Your task to perform on an android device: Turn on the flashlight Image 0: 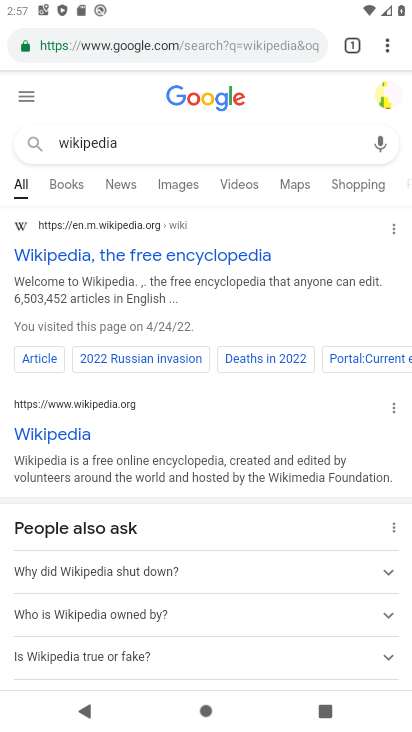
Step 0: press home button
Your task to perform on an android device: Turn on the flashlight Image 1: 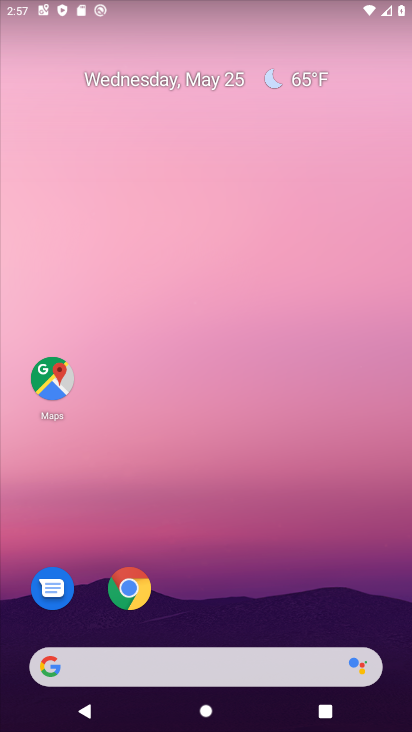
Step 1: drag from (222, 440) to (273, 171)
Your task to perform on an android device: Turn on the flashlight Image 2: 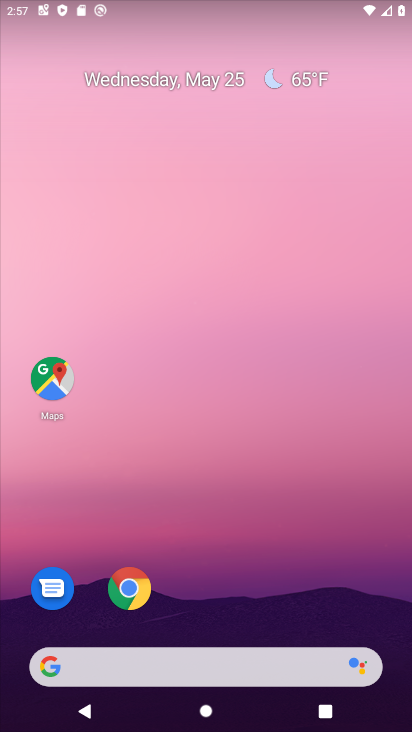
Step 2: drag from (212, 595) to (269, 100)
Your task to perform on an android device: Turn on the flashlight Image 3: 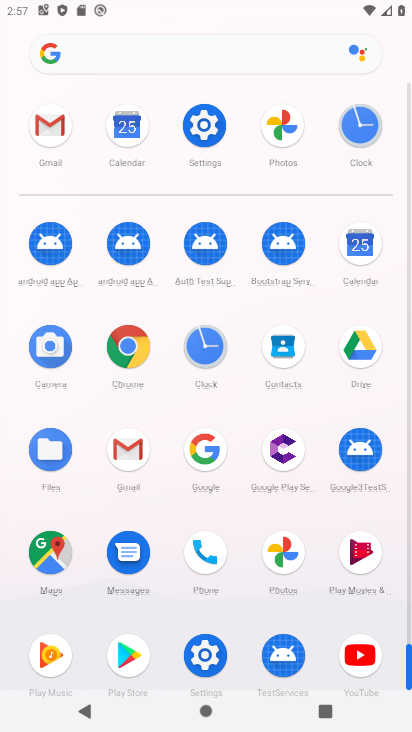
Step 3: click (203, 123)
Your task to perform on an android device: Turn on the flashlight Image 4: 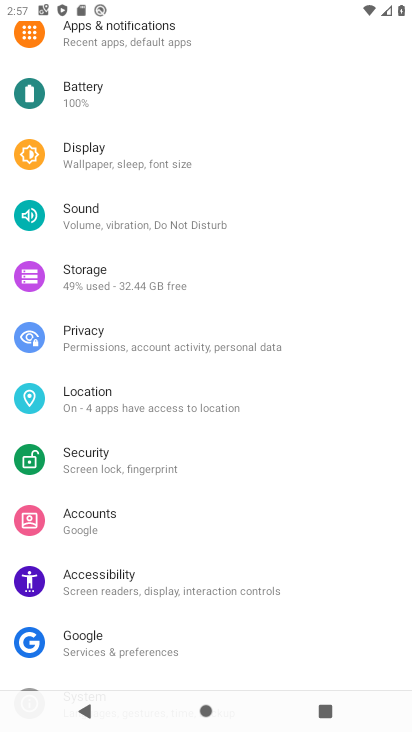
Step 4: click (141, 152)
Your task to perform on an android device: Turn on the flashlight Image 5: 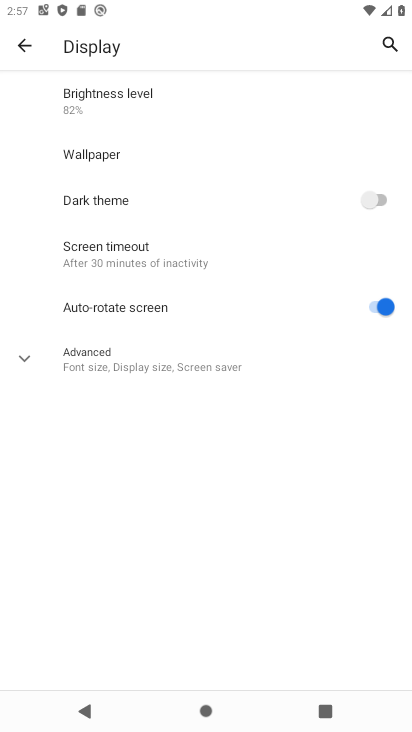
Step 5: task complete